Your task to perform on an android device: move a message to another label in the gmail app Image 0: 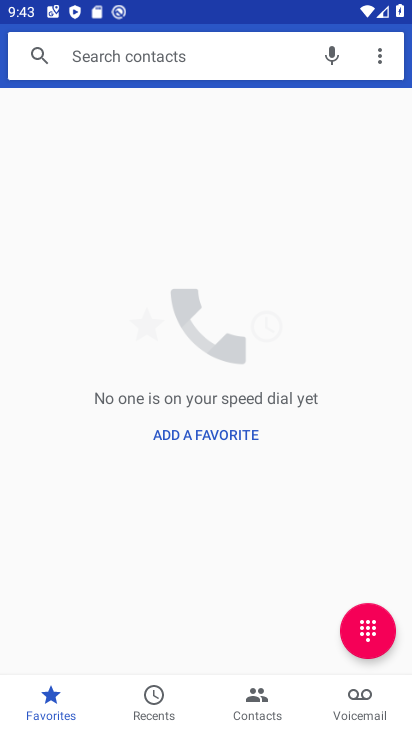
Step 0: press back button
Your task to perform on an android device: move a message to another label in the gmail app Image 1: 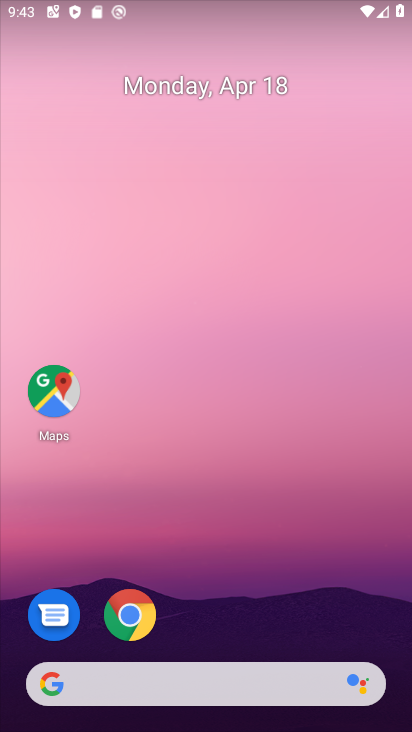
Step 1: drag from (241, 658) to (230, 278)
Your task to perform on an android device: move a message to another label in the gmail app Image 2: 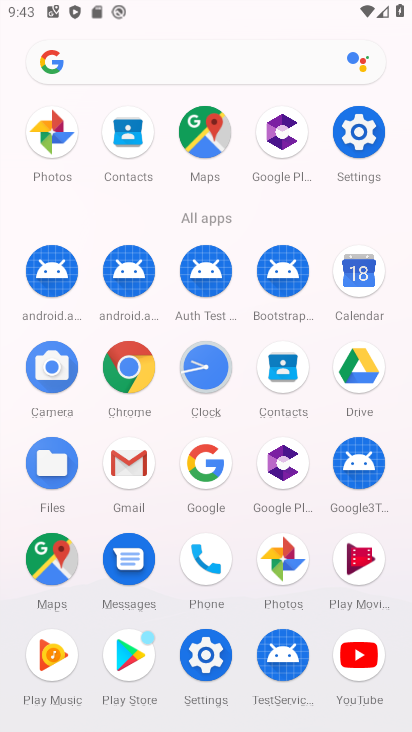
Step 2: click (128, 461)
Your task to perform on an android device: move a message to another label in the gmail app Image 3: 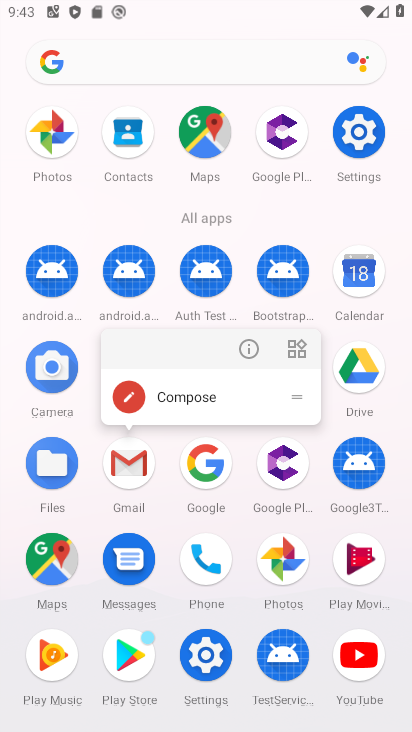
Step 3: click (128, 461)
Your task to perform on an android device: move a message to another label in the gmail app Image 4: 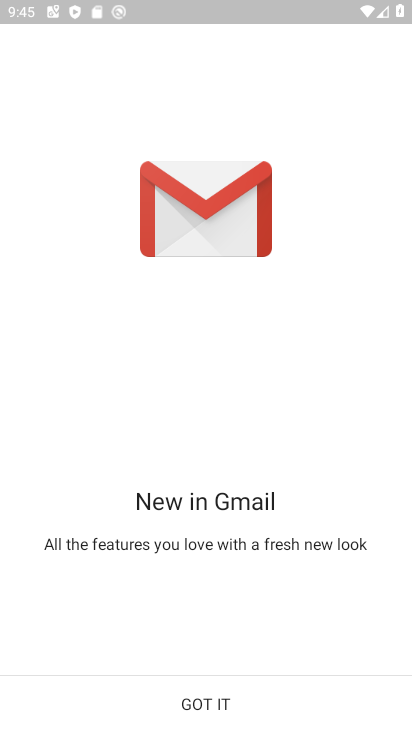
Step 4: click (188, 702)
Your task to perform on an android device: move a message to another label in the gmail app Image 5: 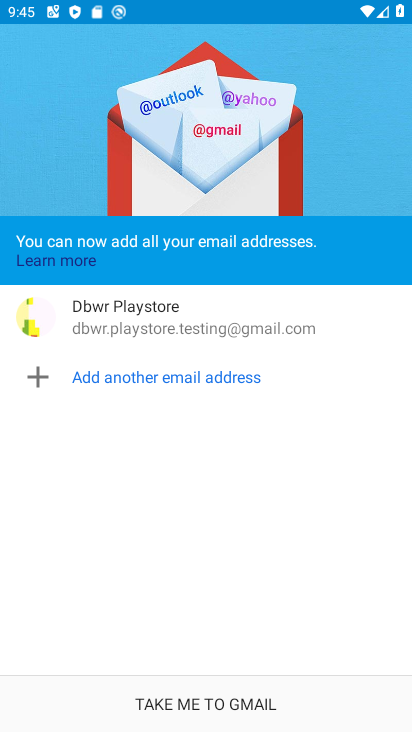
Step 5: click (190, 702)
Your task to perform on an android device: move a message to another label in the gmail app Image 6: 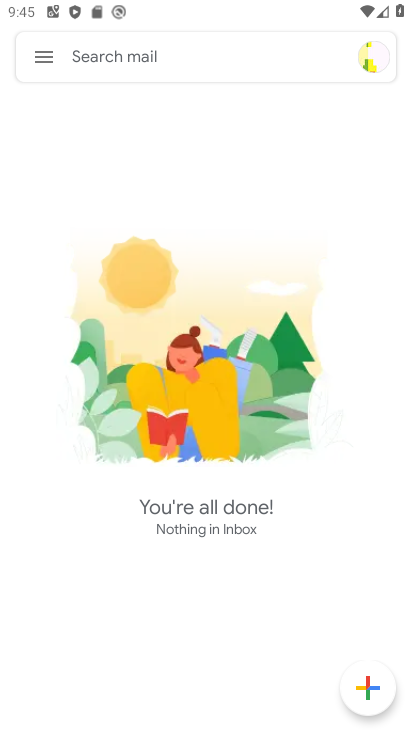
Step 6: click (40, 69)
Your task to perform on an android device: move a message to another label in the gmail app Image 7: 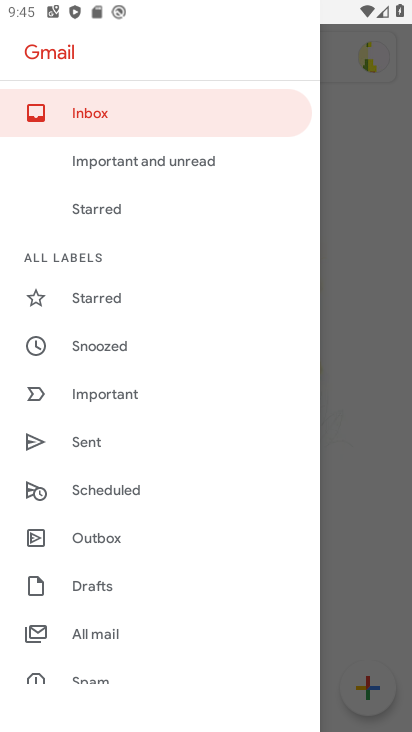
Step 7: click (100, 631)
Your task to perform on an android device: move a message to another label in the gmail app Image 8: 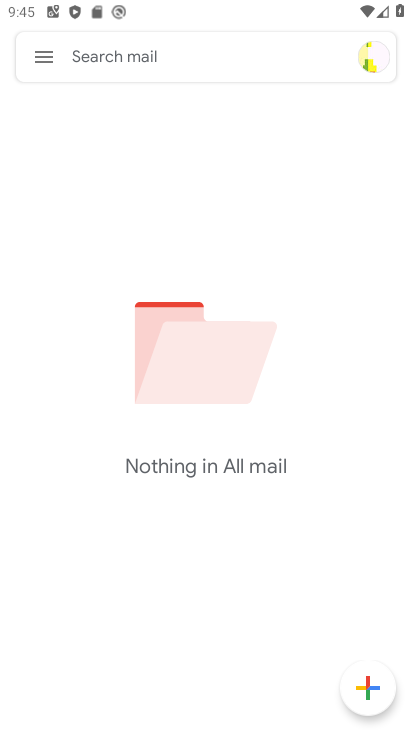
Step 8: task complete